Your task to perform on an android device: Search for vegetarian restaurants on Maps Image 0: 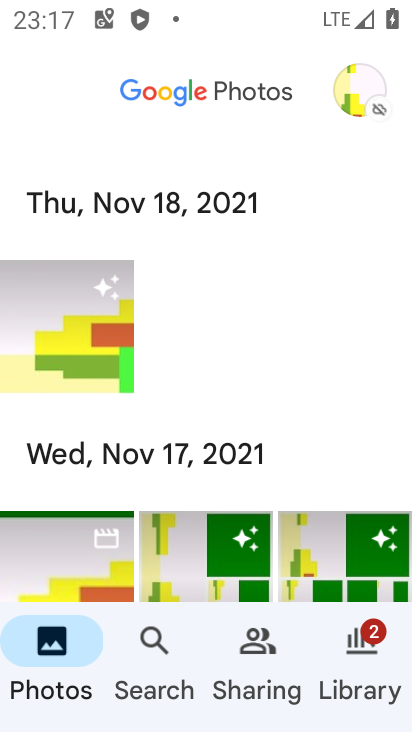
Step 0: press home button
Your task to perform on an android device: Search for vegetarian restaurants on Maps Image 1: 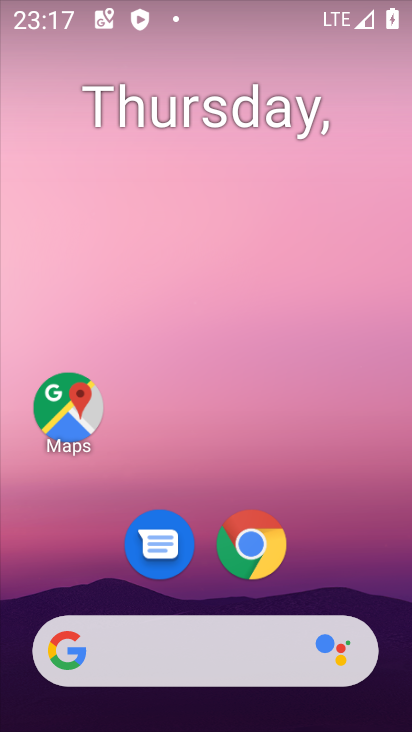
Step 1: click (70, 426)
Your task to perform on an android device: Search for vegetarian restaurants on Maps Image 2: 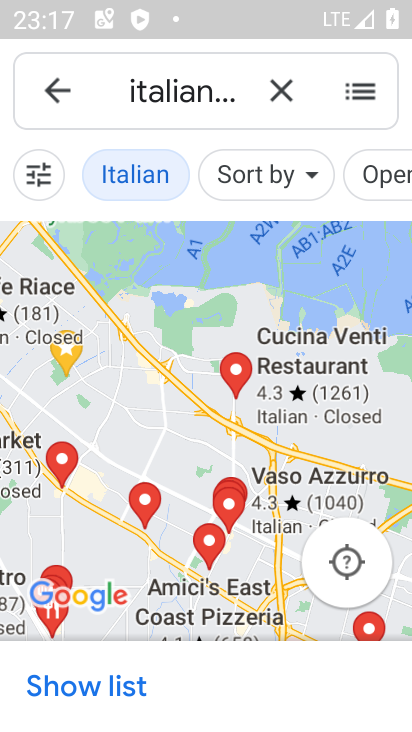
Step 2: click (290, 90)
Your task to perform on an android device: Search for vegetarian restaurants on Maps Image 3: 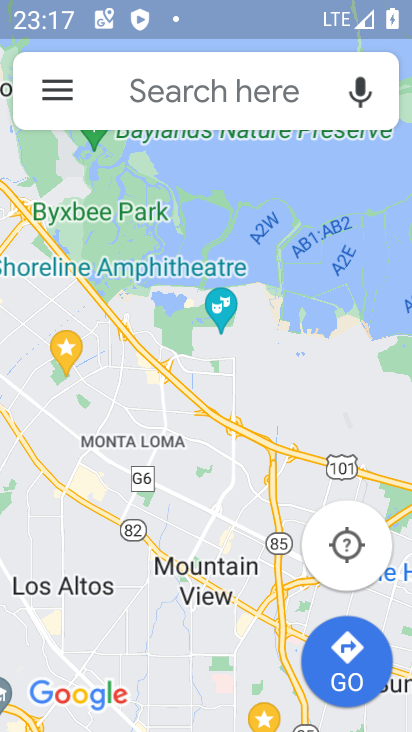
Step 3: click (225, 90)
Your task to perform on an android device: Search for vegetarian restaurants on Maps Image 4: 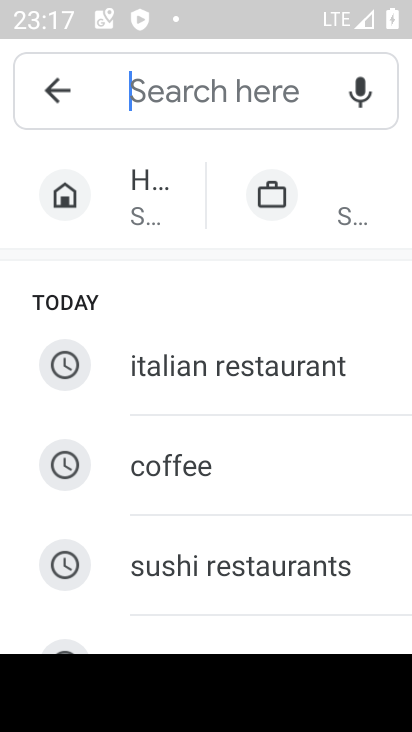
Step 4: drag from (238, 543) to (249, 147)
Your task to perform on an android device: Search for vegetarian restaurants on Maps Image 5: 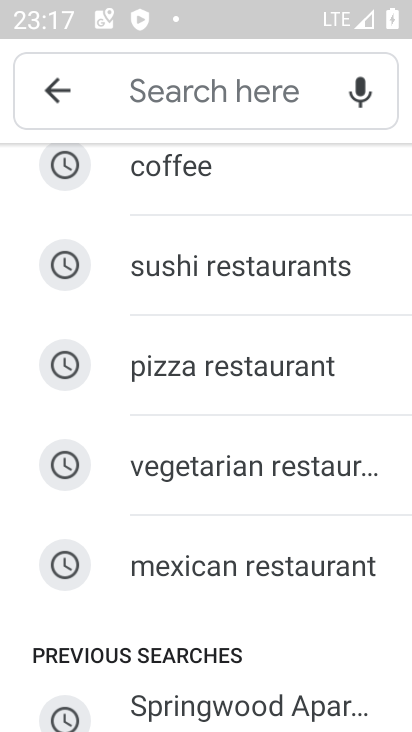
Step 5: click (204, 457)
Your task to perform on an android device: Search for vegetarian restaurants on Maps Image 6: 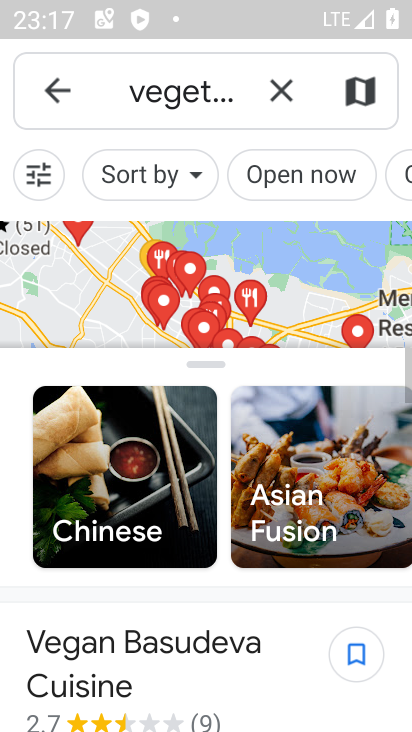
Step 6: task complete